Your task to perform on an android device: Check the settings for the Facebook app Image 0: 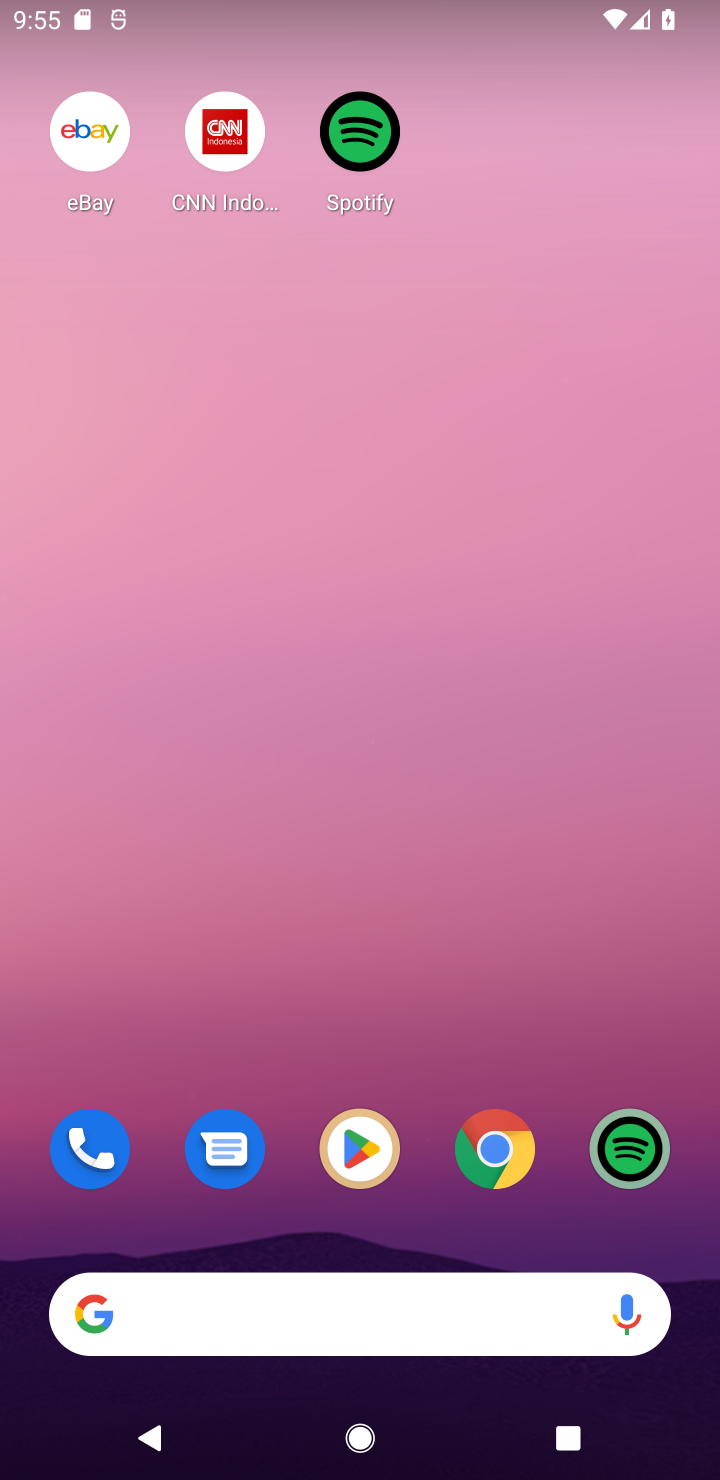
Step 0: drag from (374, 1055) to (323, 3)
Your task to perform on an android device: Check the settings for the Facebook app Image 1: 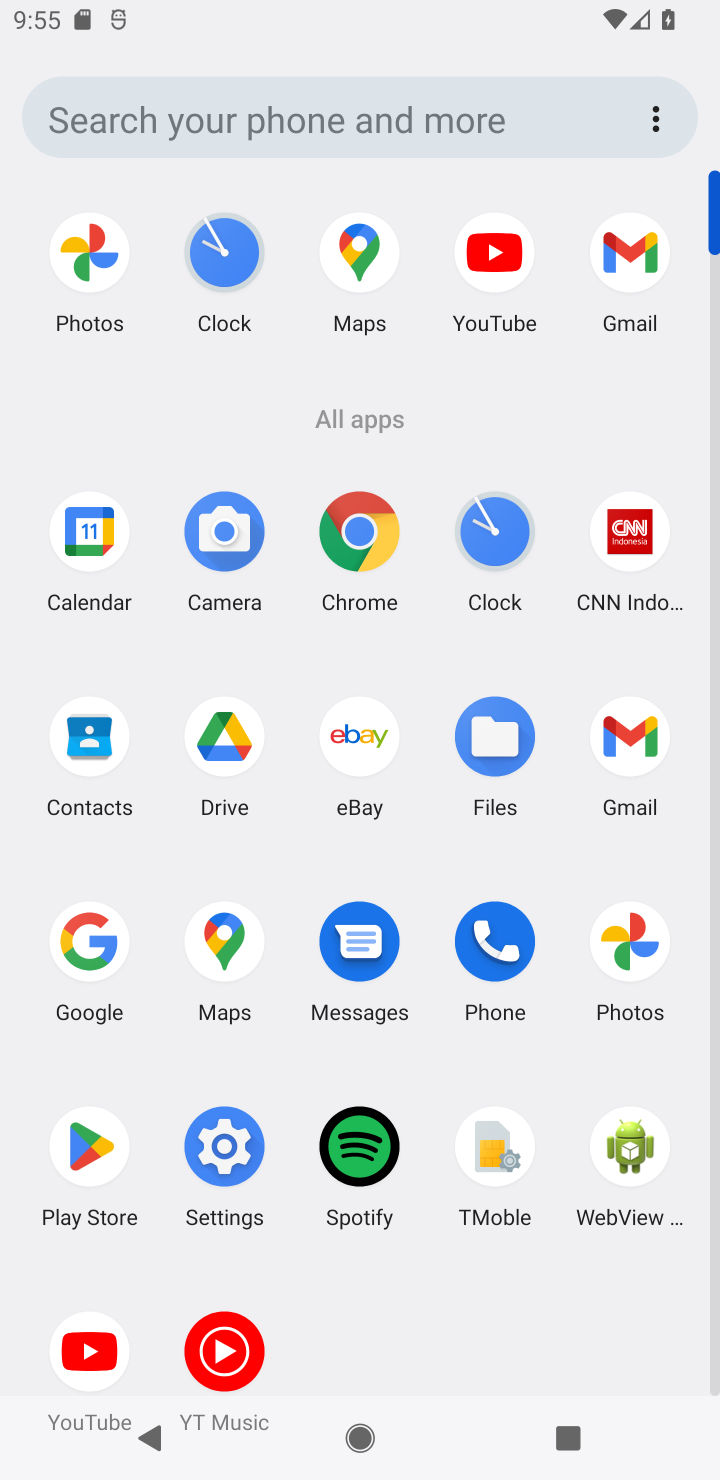
Step 1: click (61, 1183)
Your task to perform on an android device: Check the settings for the Facebook app Image 2: 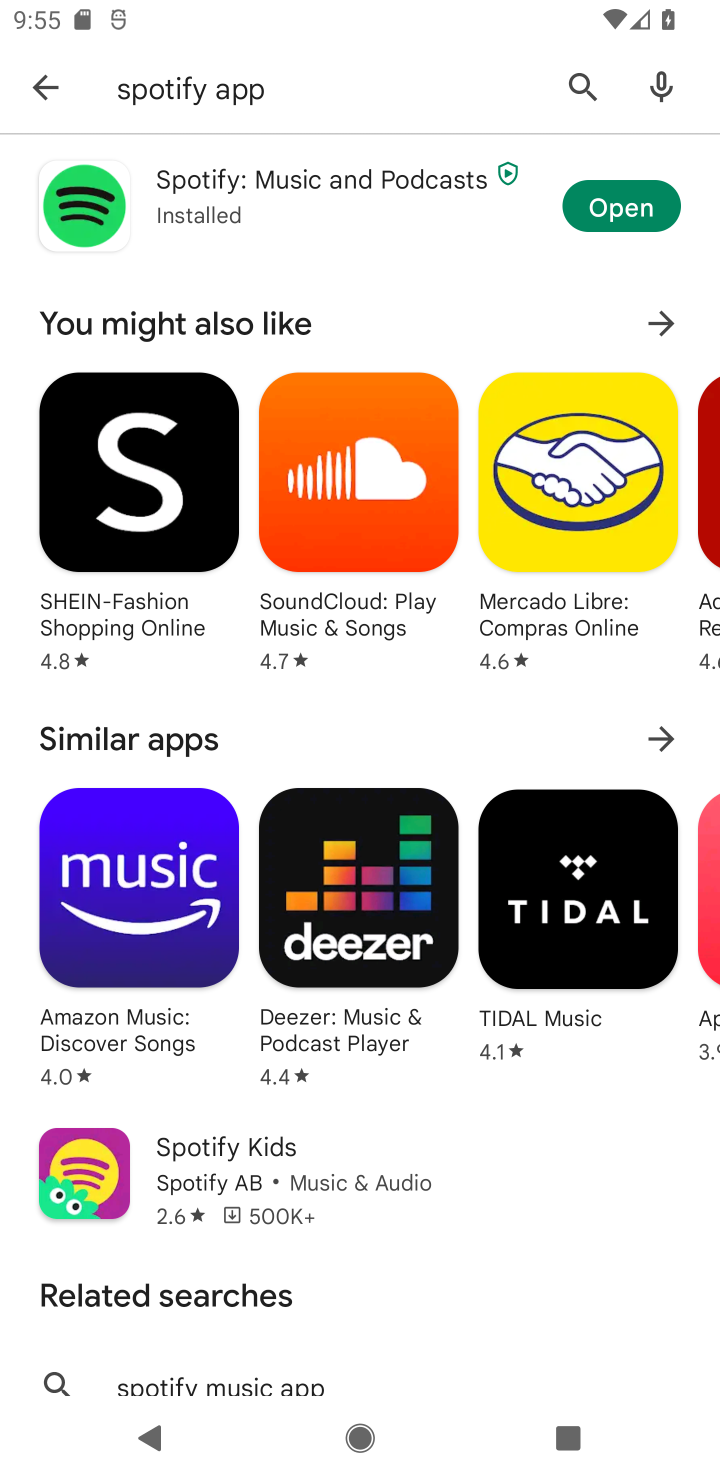
Step 2: click (41, 84)
Your task to perform on an android device: Check the settings for the Facebook app Image 3: 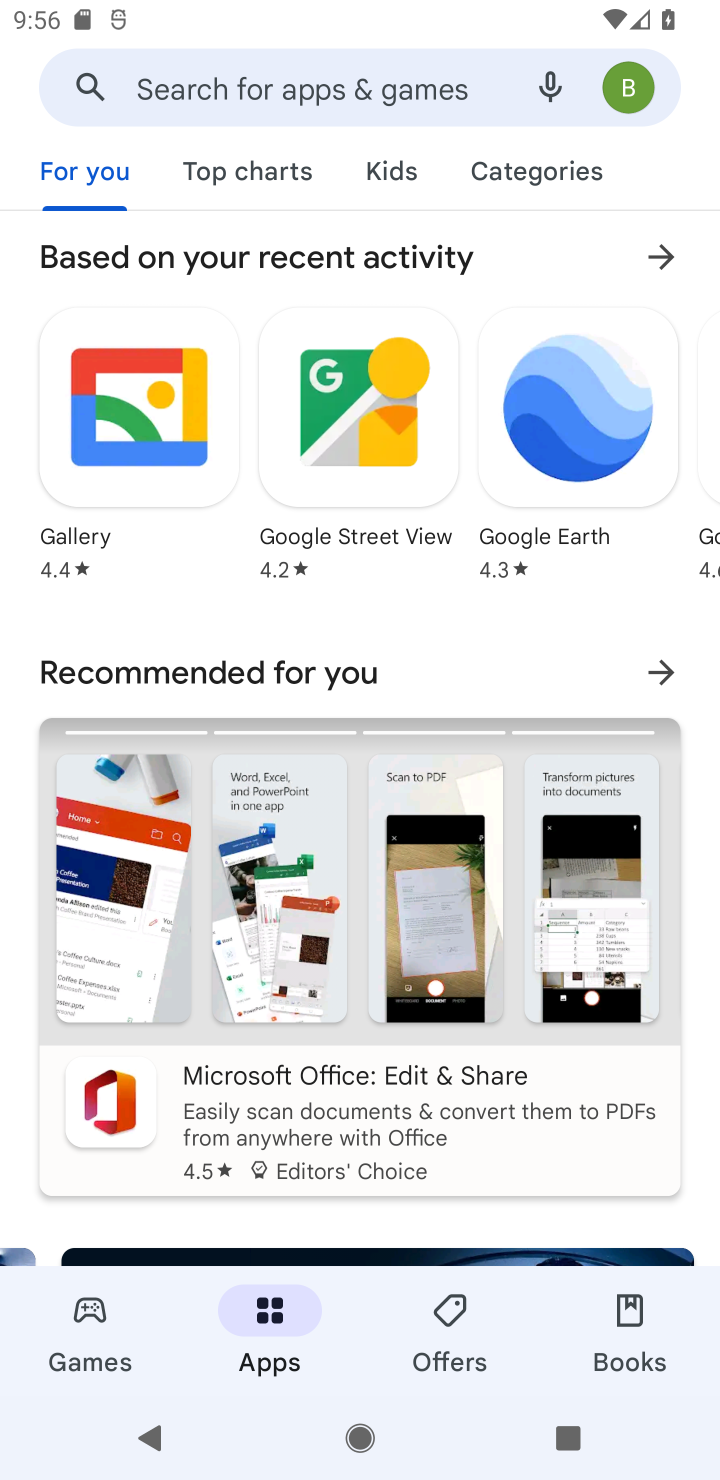
Step 3: click (333, 86)
Your task to perform on an android device: Check the settings for the Facebook app Image 4: 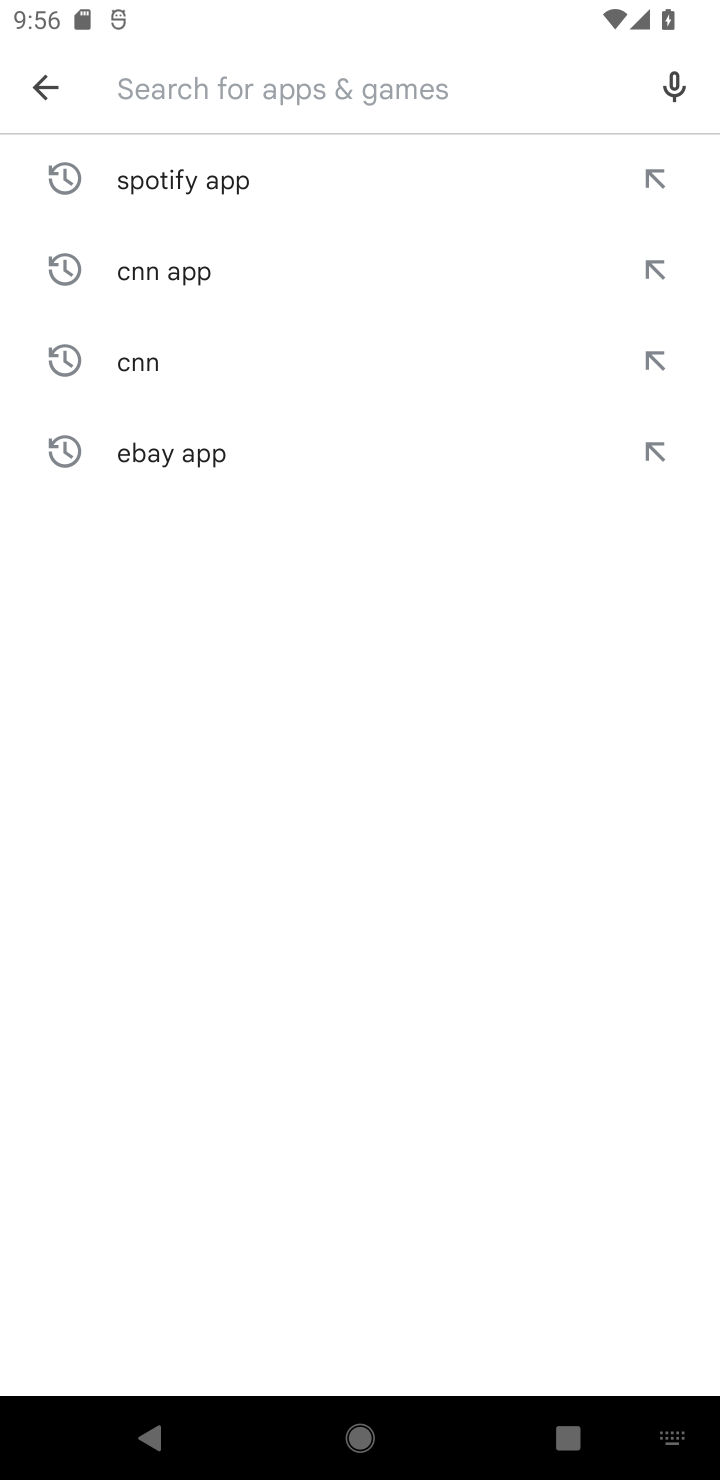
Step 4: type "Facebook app"
Your task to perform on an android device: Check the settings for the Facebook app Image 5: 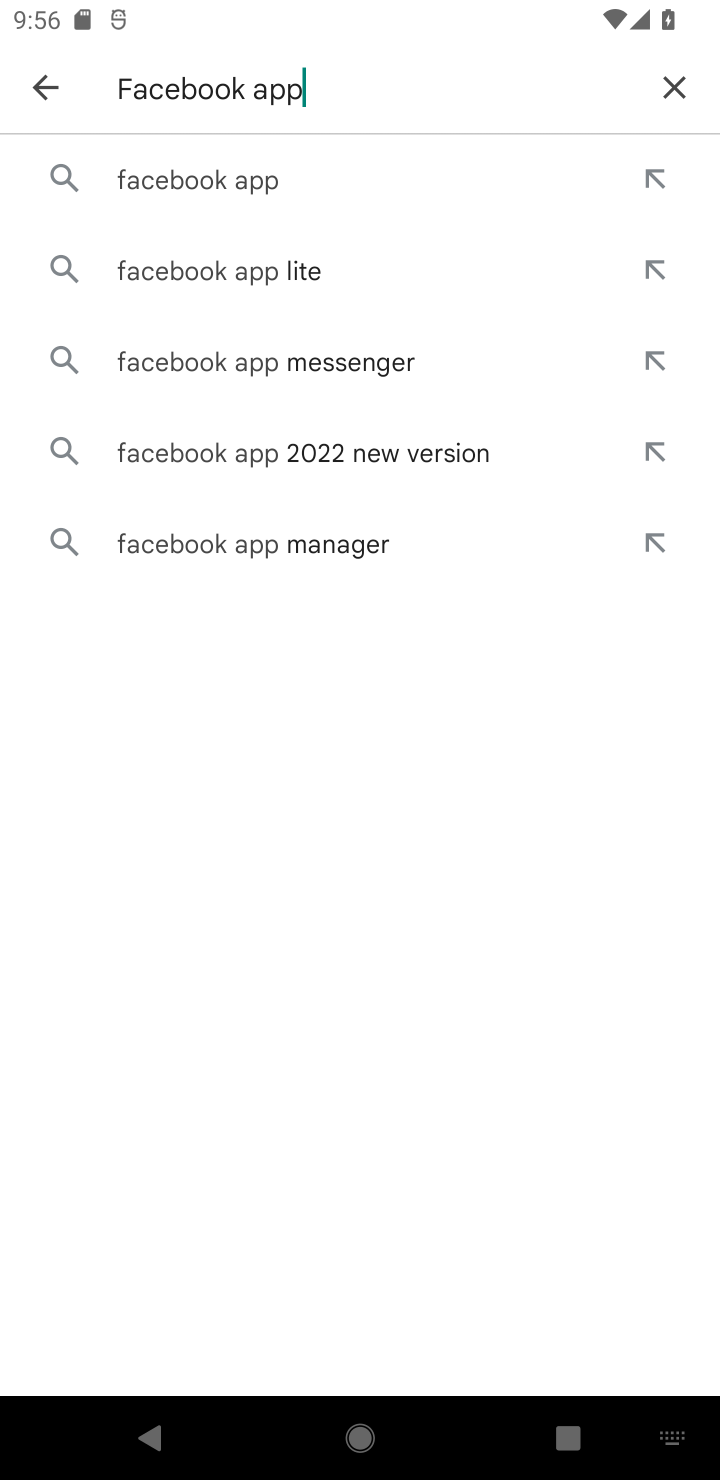
Step 5: click (257, 171)
Your task to perform on an android device: Check the settings for the Facebook app Image 6: 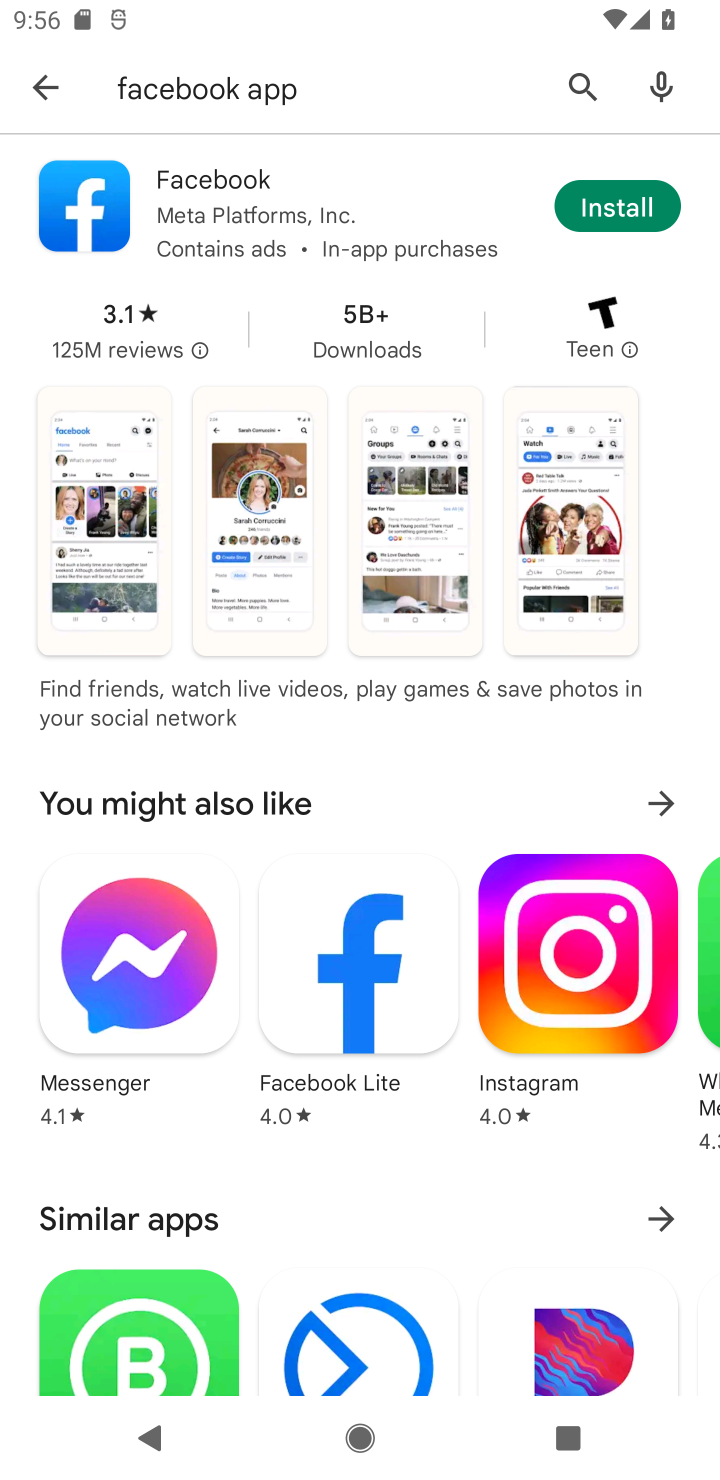
Step 6: click (626, 206)
Your task to perform on an android device: Check the settings for the Facebook app Image 7: 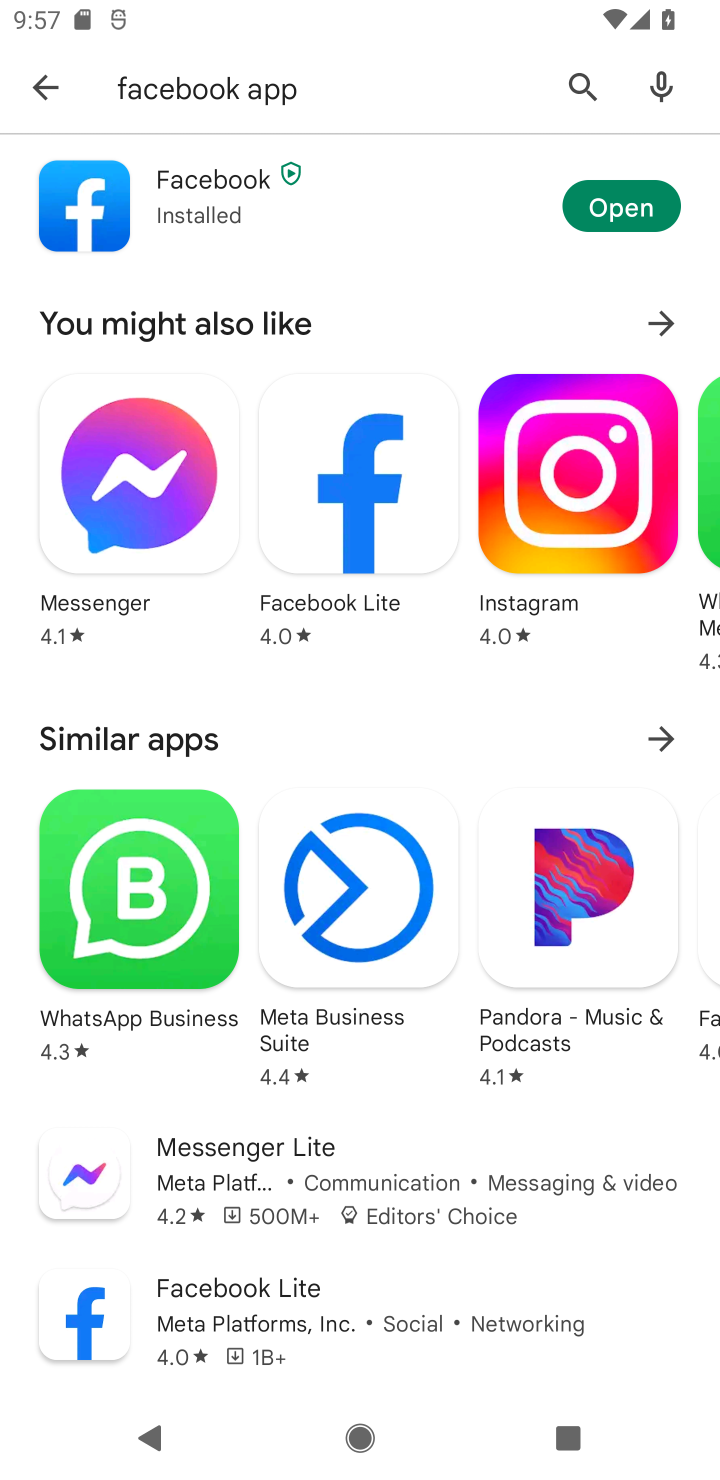
Step 7: click (626, 206)
Your task to perform on an android device: Check the settings for the Facebook app Image 8: 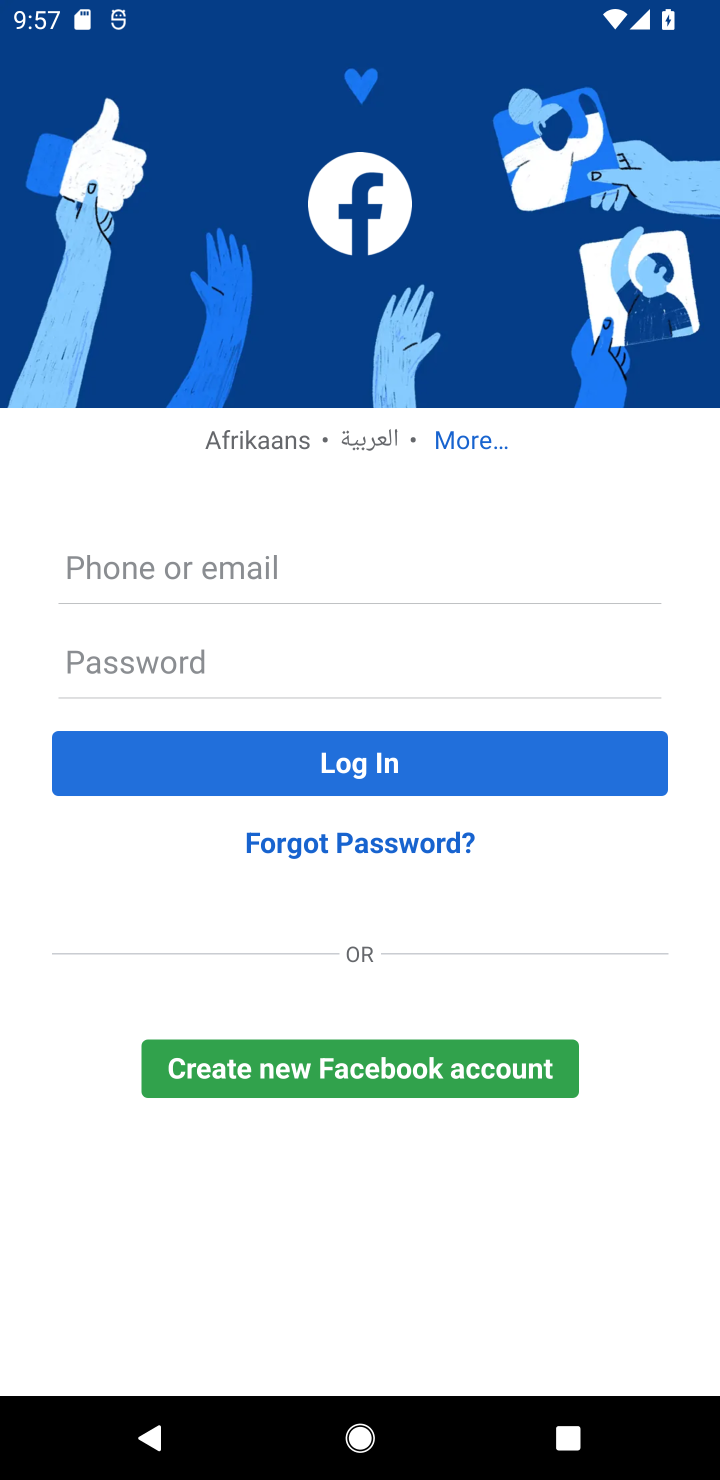
Step 8: task complete